Your task to perform on an android device: Open Amazon Image 0: 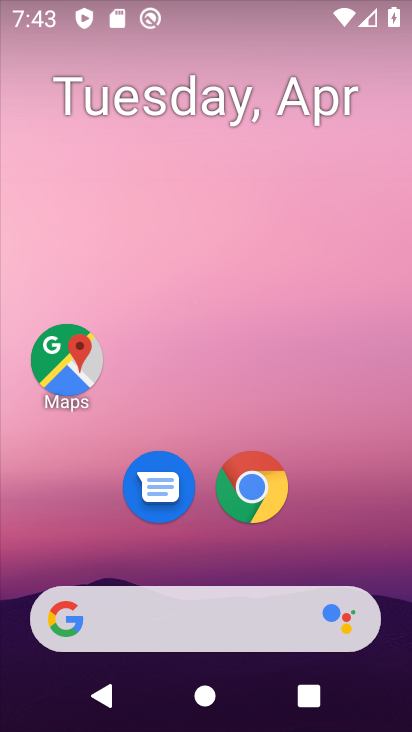
Step 0: click (253, 490)
Your task to perform on an android device: Open Amazon Image 1: 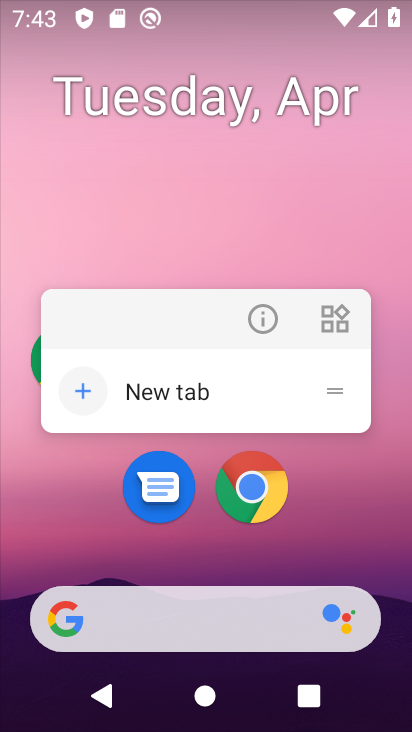
Step 1: click (253, 487)
Your task to perform on an android device: Open Amazon Image 2: 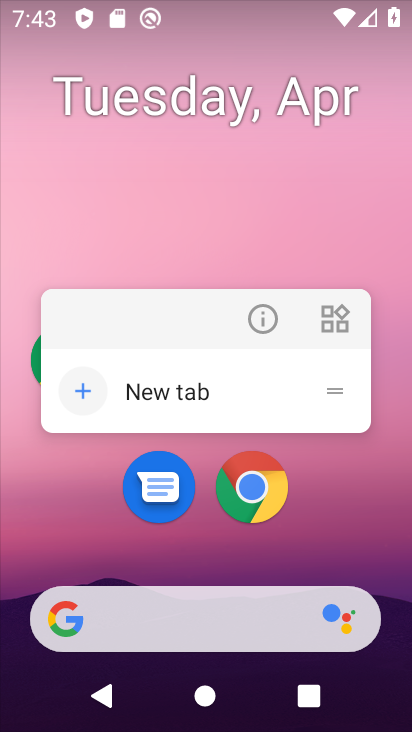
Step 2: click (253, 486)
Your task to perform on an android device: Open Amazon Image 3: 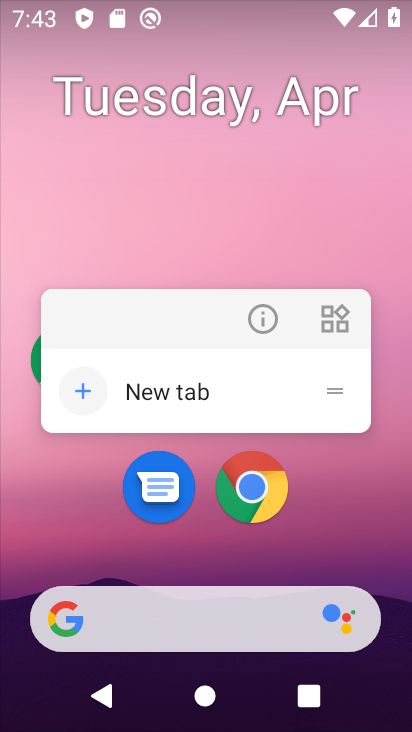
Step 3: click (253, 486)
Your task to perform on an android device: Open Amazon Image 4: 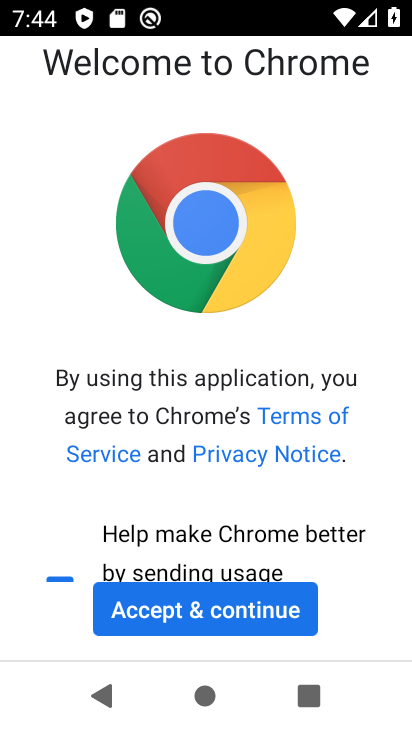
Step 4: click (157, 607)
Your task to perform on an android device: Open Amazon Image 5: 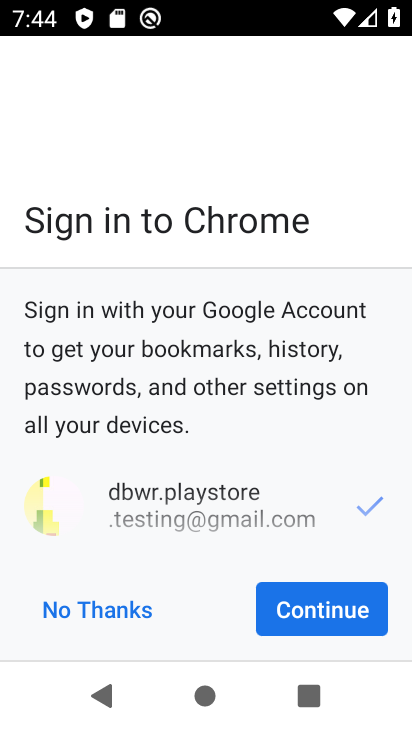
Step 5: click (285, 606)
Your task to perform on an android device: Open Amazon Image 6: 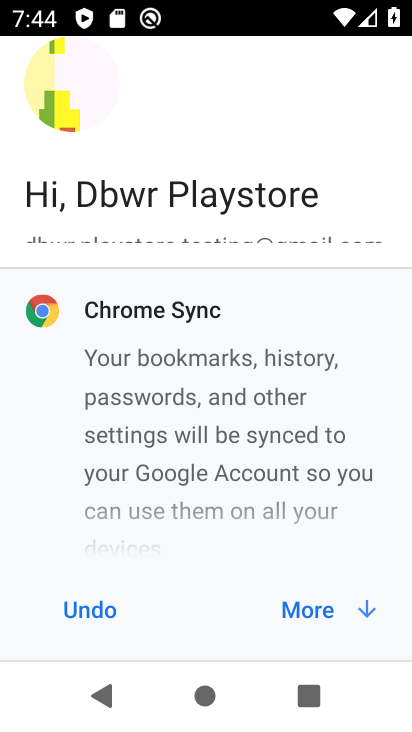
Step 6: click (333, 606)
Your task to perform on an android device: Open Amazon Image 7: 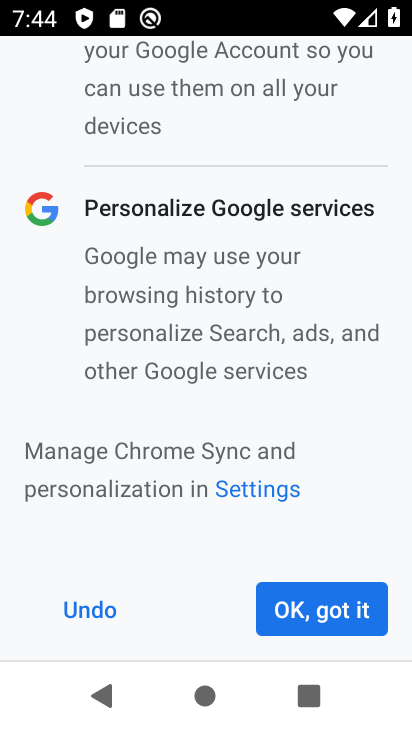
Step 7: click (333, 606)
Your task to perform on an android device: Open Amazon Image 8: 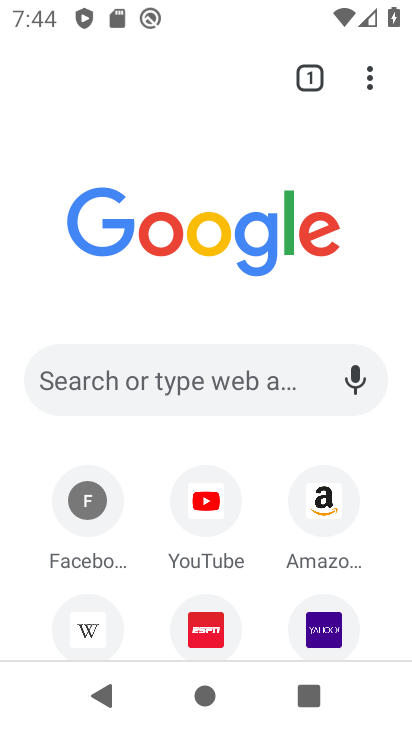
Step 8: click (323, 487)
Your task to perform on an android device: Open Amazon Image 9: 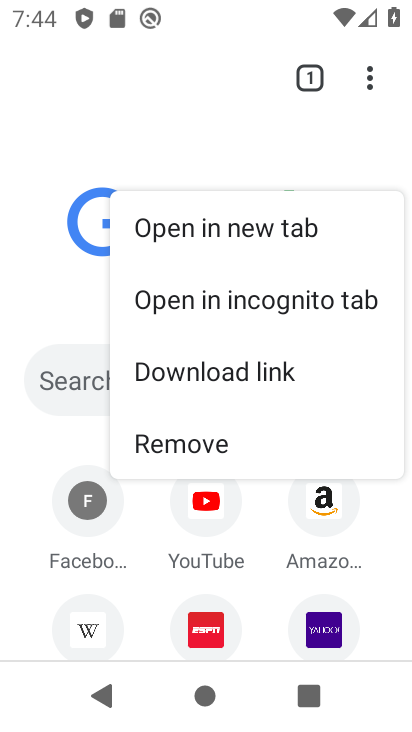
Step 9: click (322, 500)
Your task to perform on an android device: Open Amazon Image 10: 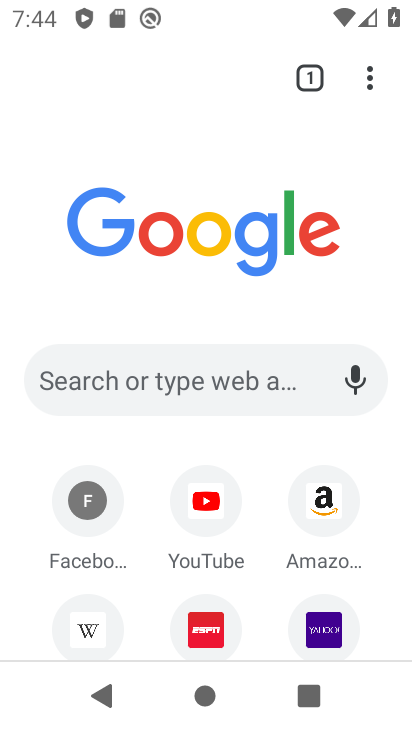
Step 10: click (326, 507)
Your task to perform on an android device: Open Amazon Image 11: 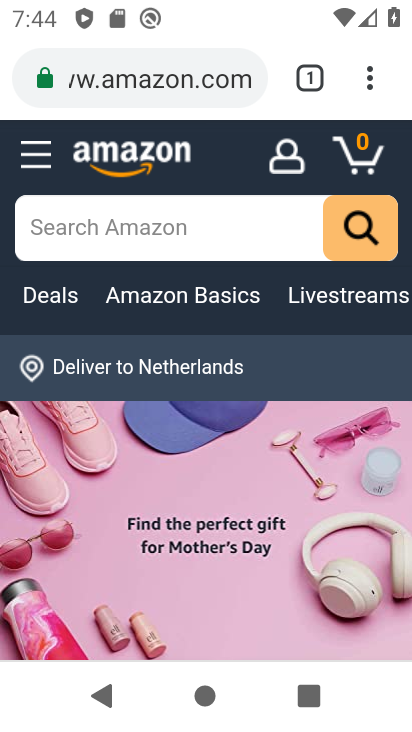
Step 11: task complete